Your task to perform on an android device: find snoozed emails in the gmail app Image 0: 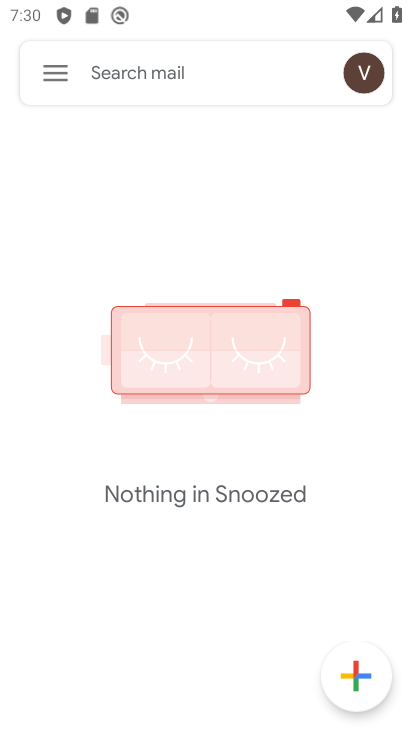
Step 0: press home button
Your task to perform on an android device: find snoozed emails in the gmail app Image 1: 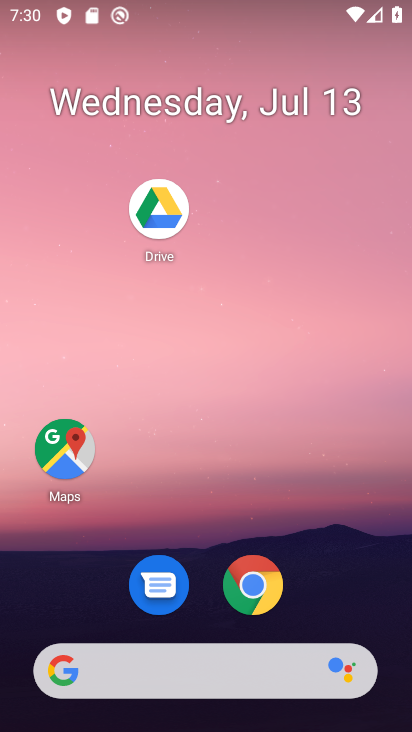
Step 1: drag from (156, 673) to (237, 160)
Your task to perform on an android device: find snoozed emails in the gmail app Image 2: 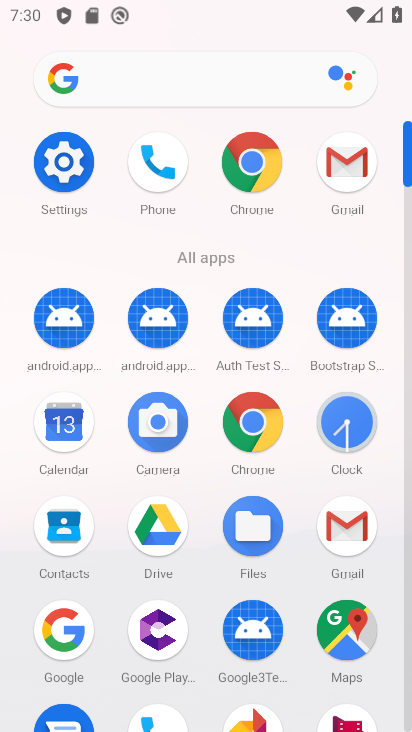
Step 2: click (341, 174)
Your task to perform on an android device: find snoozed emails in the gmail app Image 3: 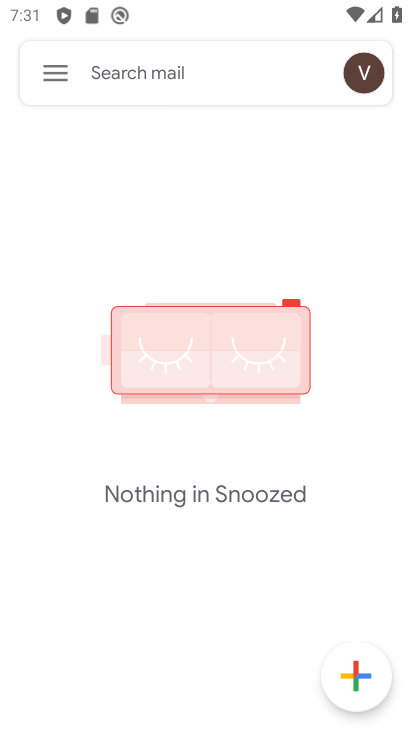
Step 3: task complete